Your task to perform on an android device: Go to Google maps Image 0: 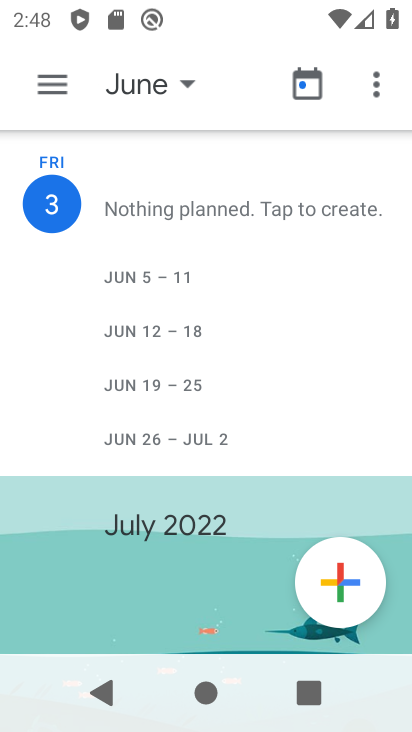
Step 0: press home button
Your task to perform on an android device: Go to Google maps Image 1: 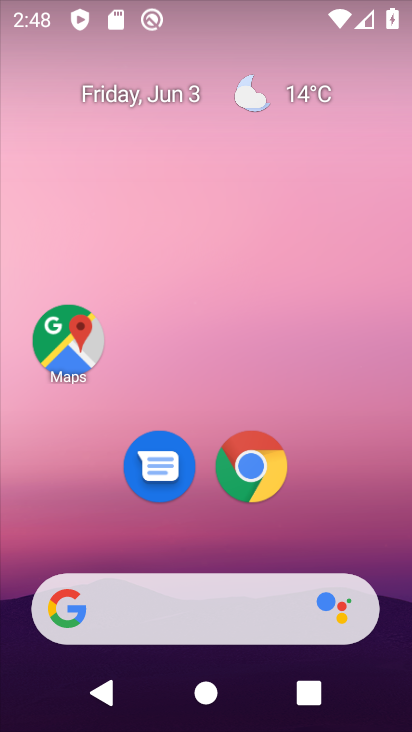
Step 1: click (73, 343)
Your task to perform on an android device: Go to Google maps Image 2: 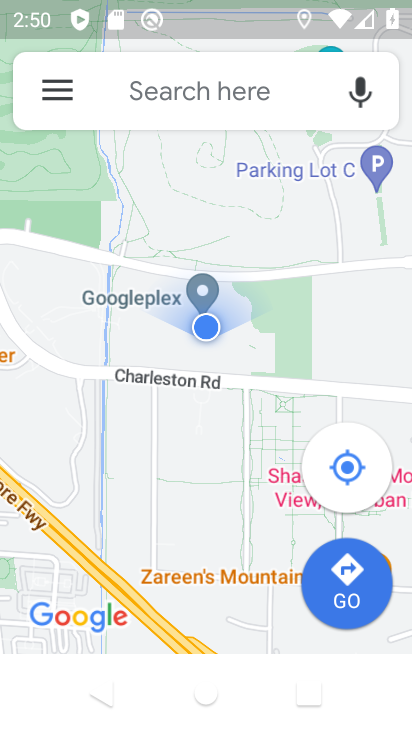
Step 2: task complete